Your task to perform on an android device: Open settings Image 0: 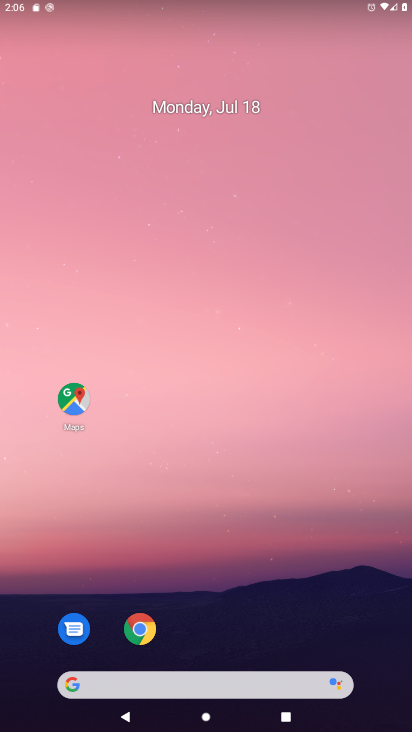
Step 0: drag from (194, 455) to (226, 101)
Your task to perform on an android device: Open settings Image 1: 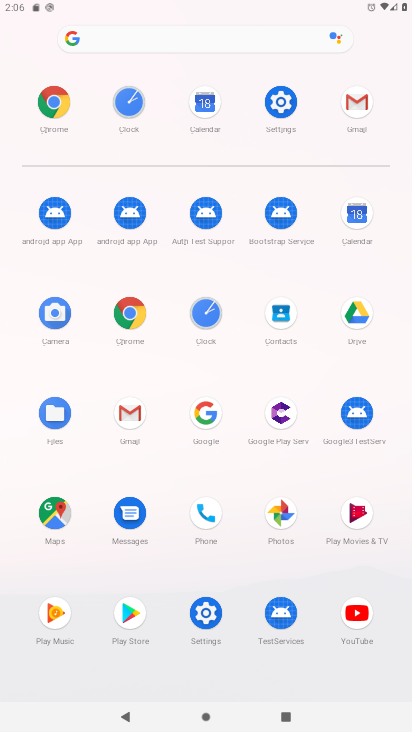
Step 1: click (274, 108)
Your task to perform on an android device: Open settings Image 2: 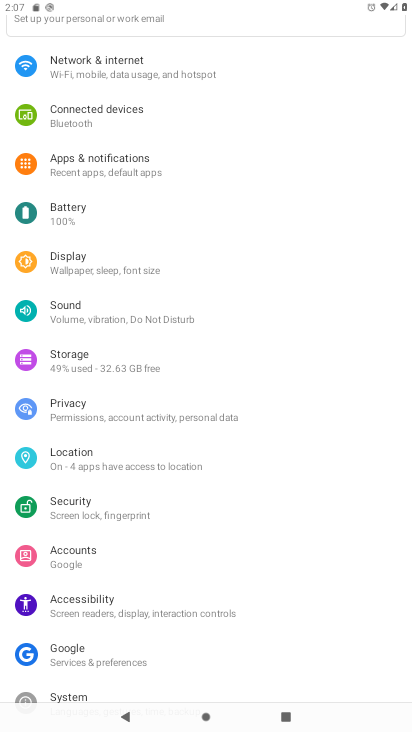
Step 2: task complete